Your task to perform on an android device: Open sound settings Image 0: 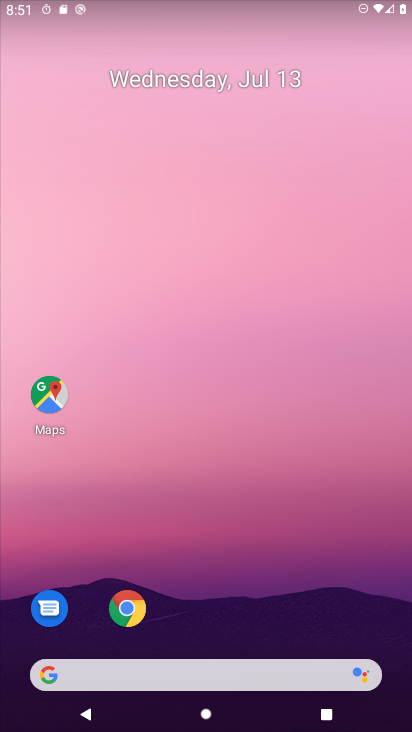
Step 0: drag from (239, 719) to (239, 246)
Your task to perform on an android device: Open sound settings Image 1: 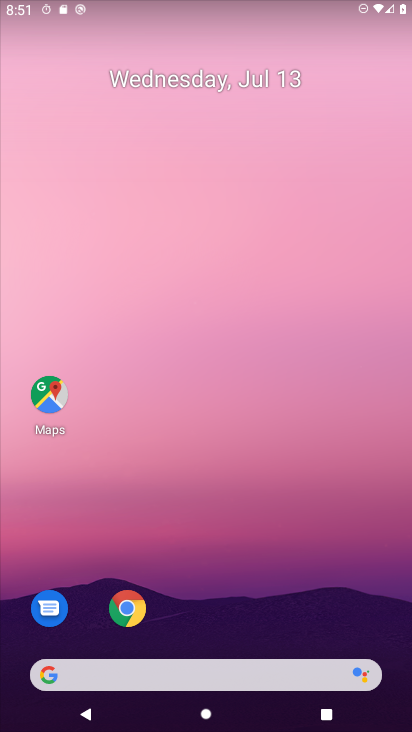
Step 1: drag from (238, 665) to (217, 108)
Your task to perform on an android device: Open sound settings Image 2: 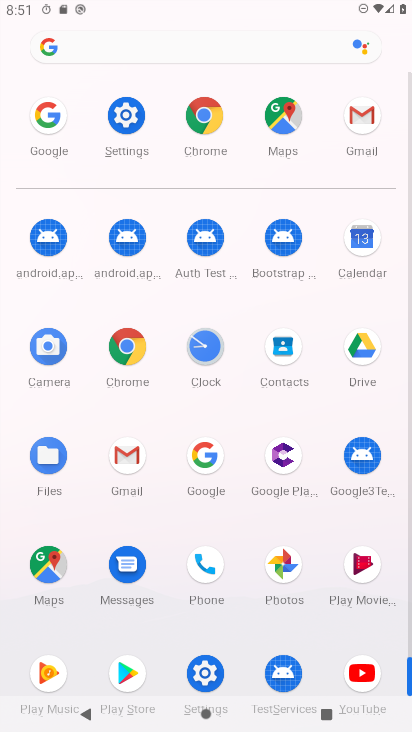
Step 2: click (123, 110)
Your task to perform on an android device: Open sound settings Image 3: 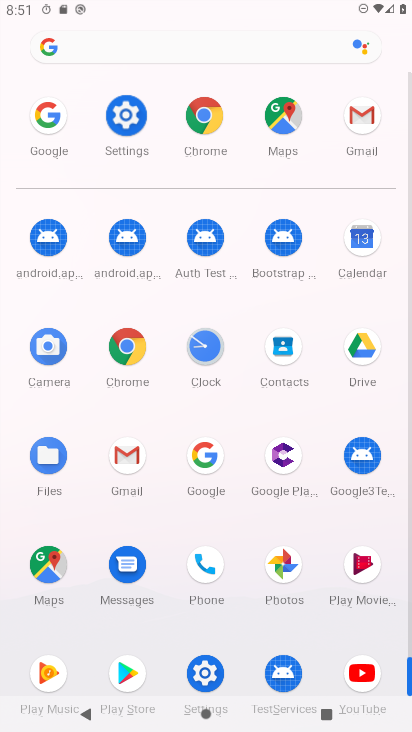
Step 3: click (119, 108)
Your task to perform on an android device: Open sound settings Image 4: 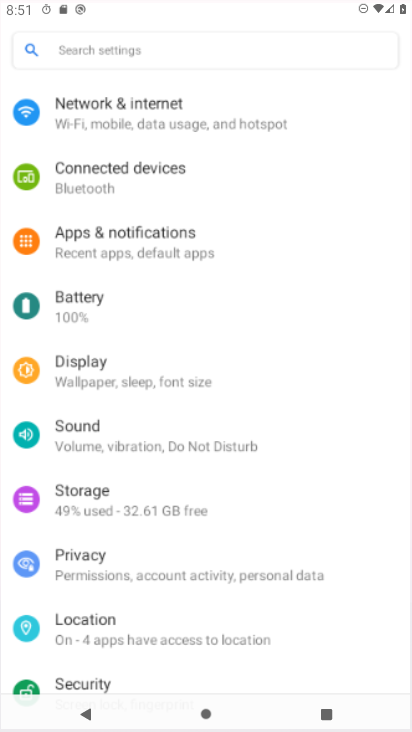
Step 4: click (119, 108)
Your task to perform on an android device: Open sound settings Image 5: 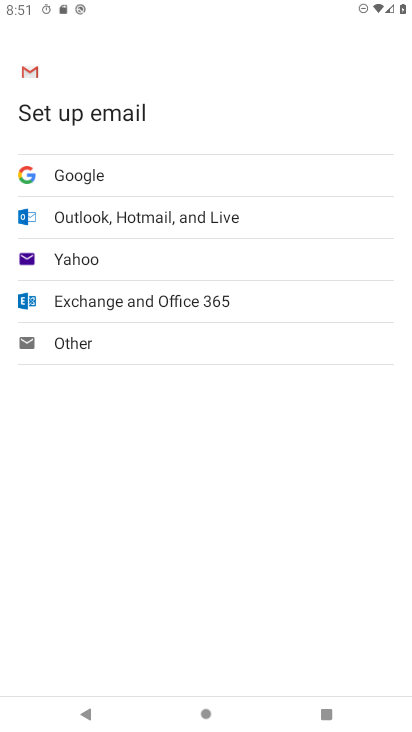
Step 5: press back button
Your task to perform on an android device: Open sound settings Image 6: 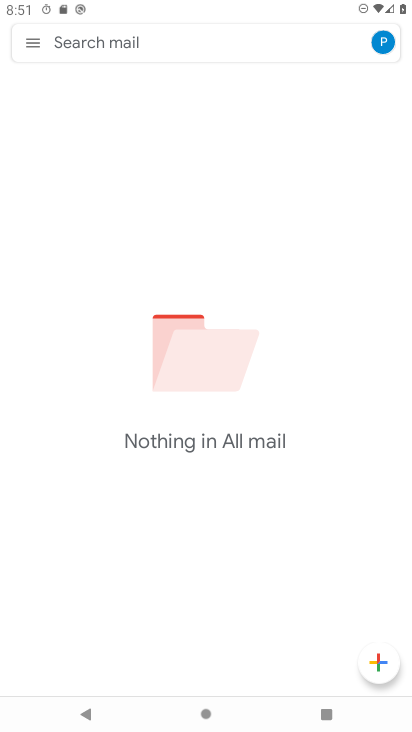
Step 6: press home button
Your task to perform on an android device: Open sound settings Image 7: 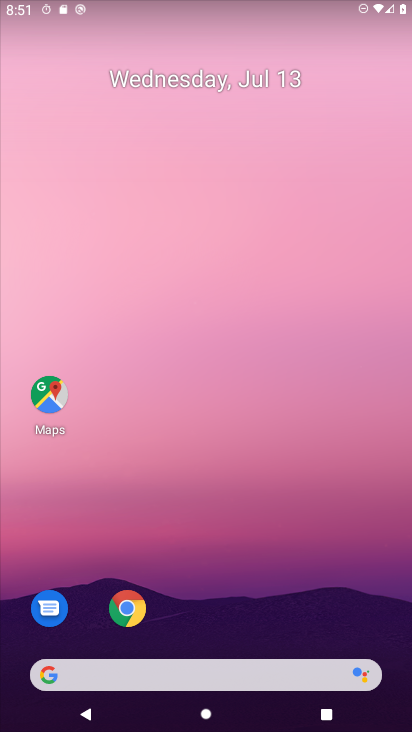
Step 7: drag from (191, 529) to (106, 166)
Your task to perform on an android device: Open sound settings Image 8: 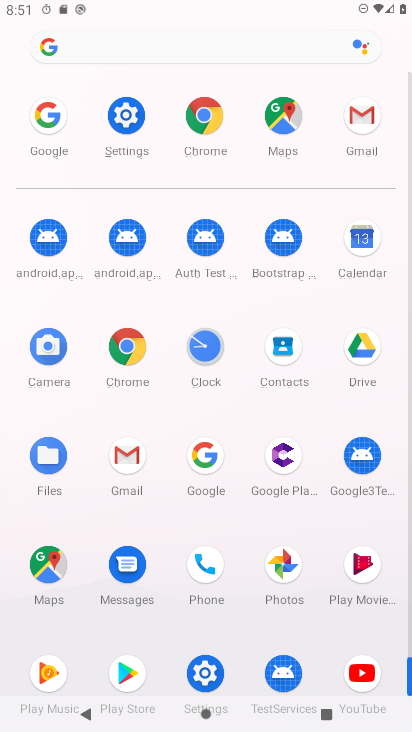
Step 8: click (132, 117)
Your task to perform on an android device: Open sound settings Image 9: 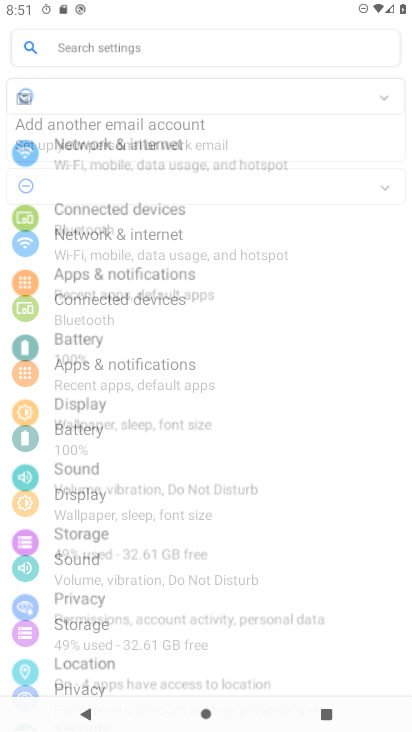
Step 9: click (124, 118)
Your task to perform on an android device: Open sound settings Image 10: 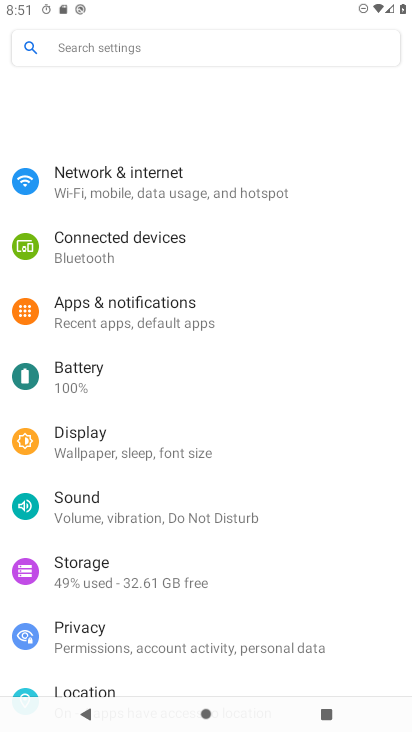
Step 10: click (127, 115)
Your task to perform on an android device: Open sound settings Image 11: 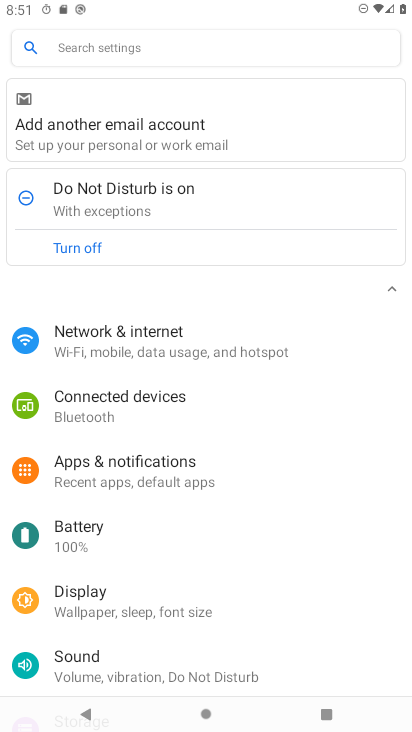
Step 11: drag from (117, 593) to (98, 275)
Your task to perform on an android device: Open sound settings Image 12: 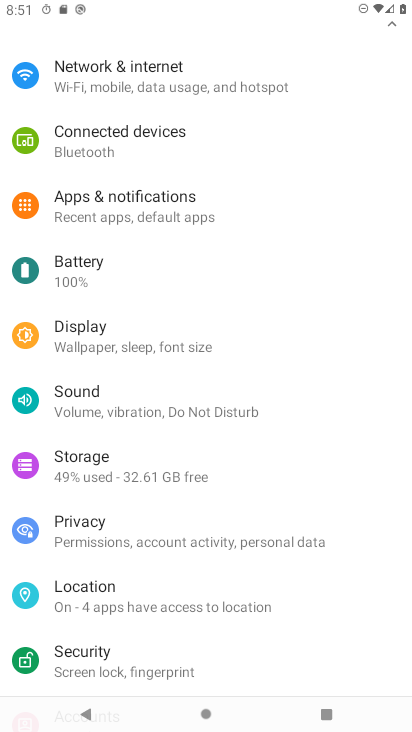
Step 12: drag from (122, 573) to (106, 417)
Your task to perform on an android device: Open sound settings Image 13: 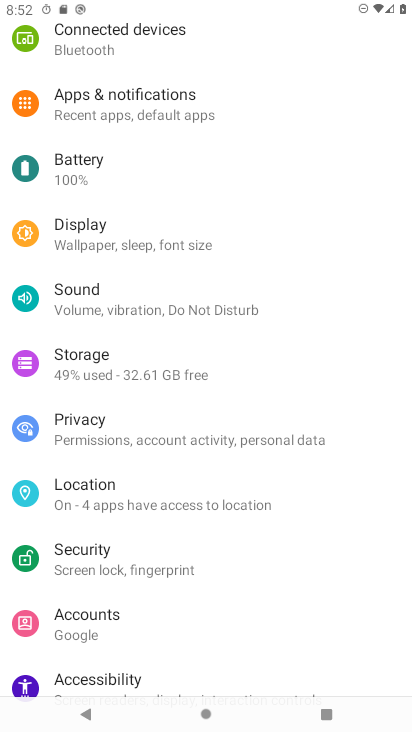
Step 13: click (94, 305)
Your task to perform on an android device: Open sound settings Image 14: 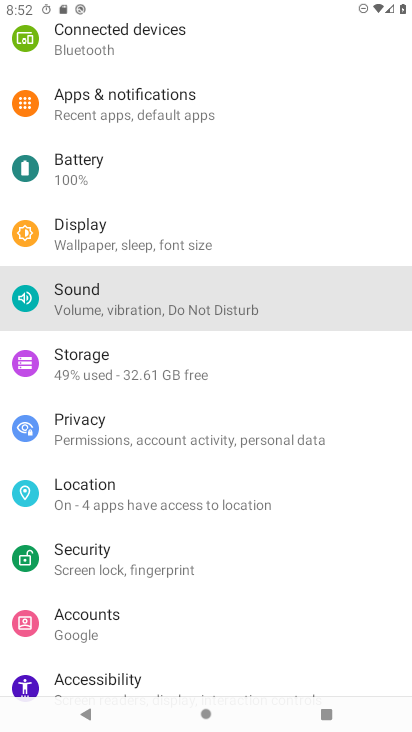
Step 14: click (93, 303)
Your task to perform on an android device: Open sound settings Image 15: 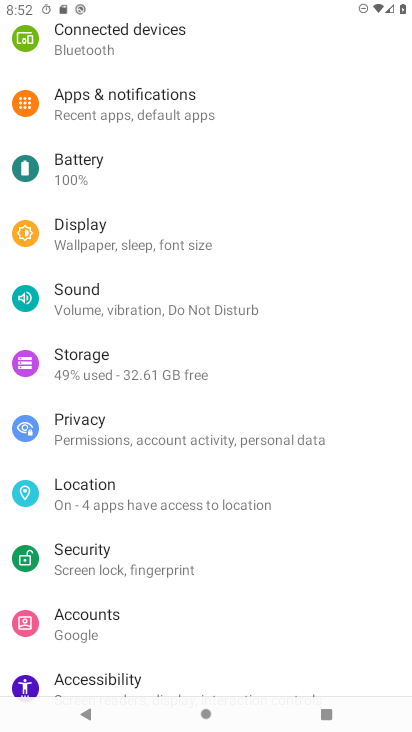
Step 15: click (96, 303)
Your task to perform on an android device: Open sound settings Image 16: 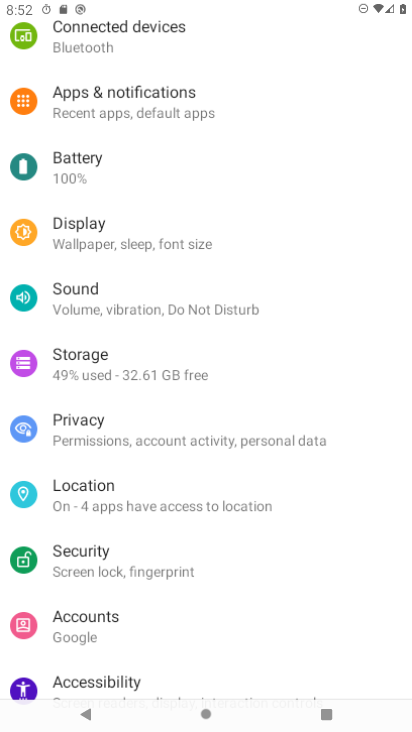
Step 16: click (100, 300)
Your task to perform on an android device: Open sound settings Image 17: 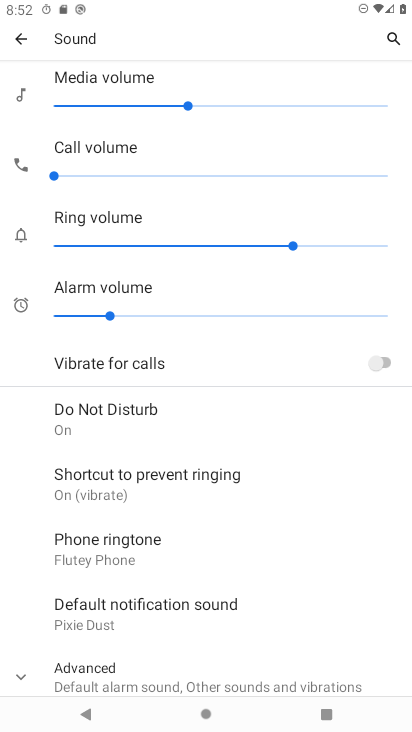
Step 17: task complete